Your task to perform on an android device: toggle javascript in the chrome app Image 0: 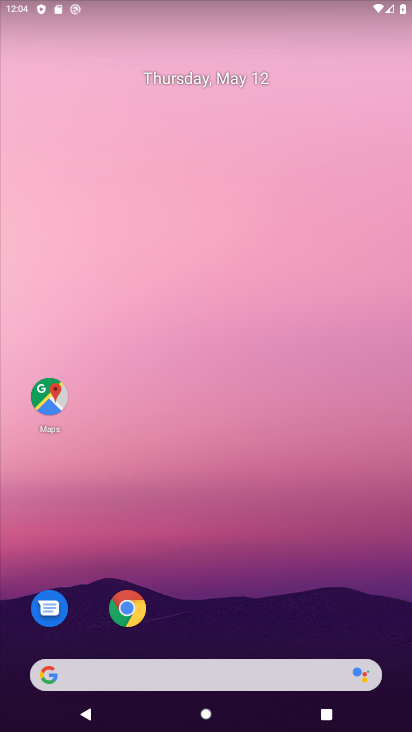
Step 0: click (128, 621)
Your task to perform on an android device: toggle javascript in the chrome app Image 1: 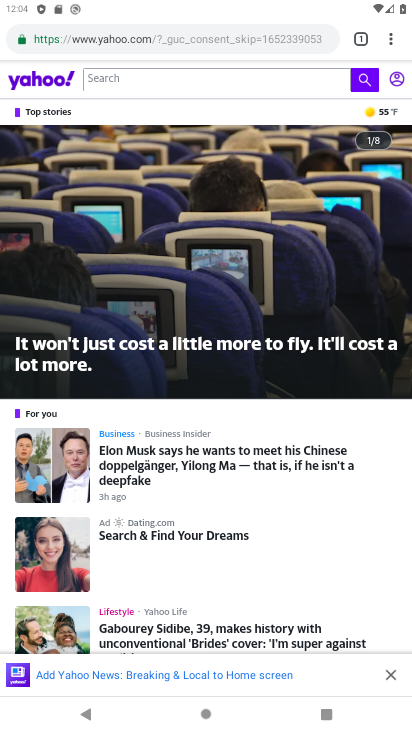
Step 1: click (394, 43)
Your task to perform on an android device: toggle javascript in the chrome app Image 2: 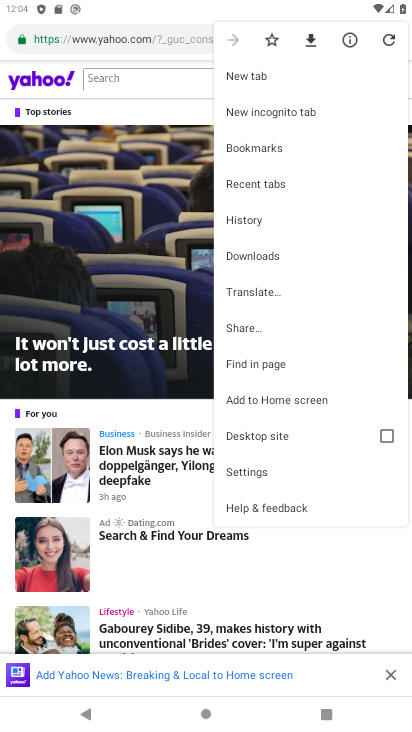
Step 2: click (244, 469)
Your task to perform on an android device: toggle javascript in the chrome app Image 3: 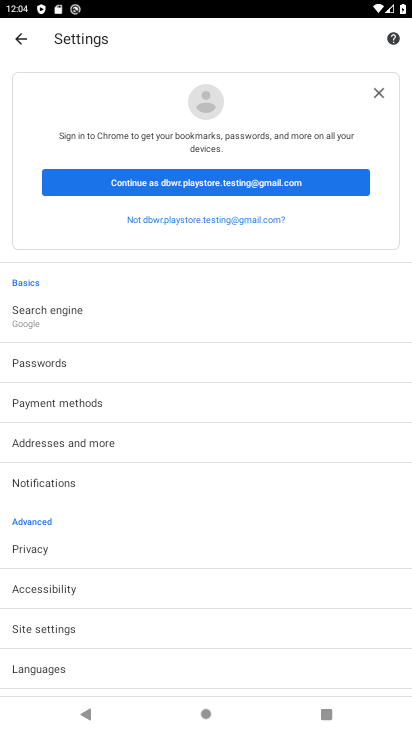
Step 3: click (64, 633)
Your task to perform on an android device: toggle javascript in the chrome app Image 4: 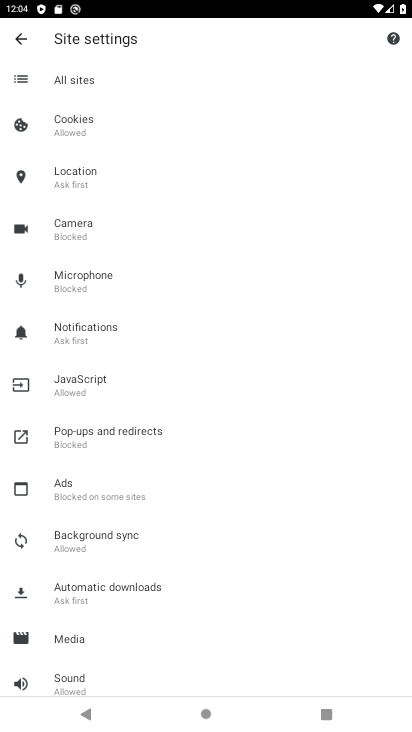
Step 4: click (134, 378)
Your task to perform on an android device: toggle javascript in the chrome app Image 5: 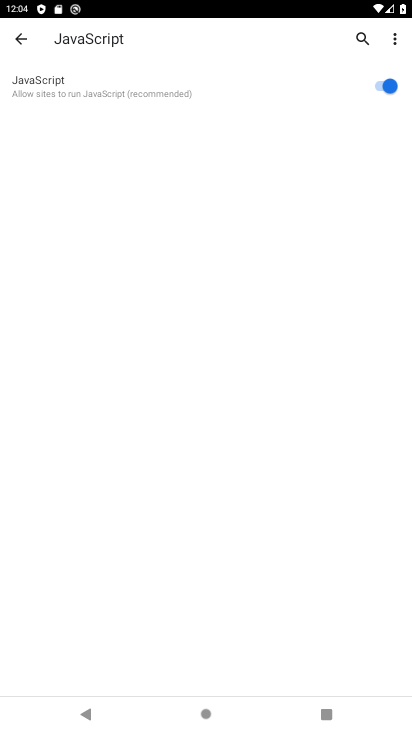
Step 5: click (390, 88)
Your task to perform on an android device: toggle javascript in the chrome app Image 6: 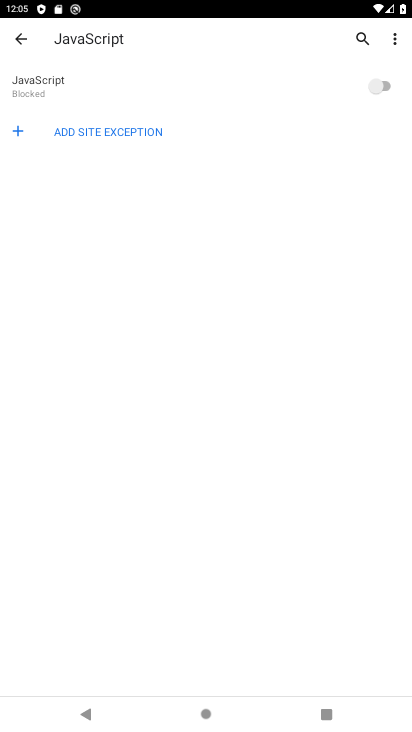
Step 6: task complete